Your task to perform on an android device: check battery use Image 0: 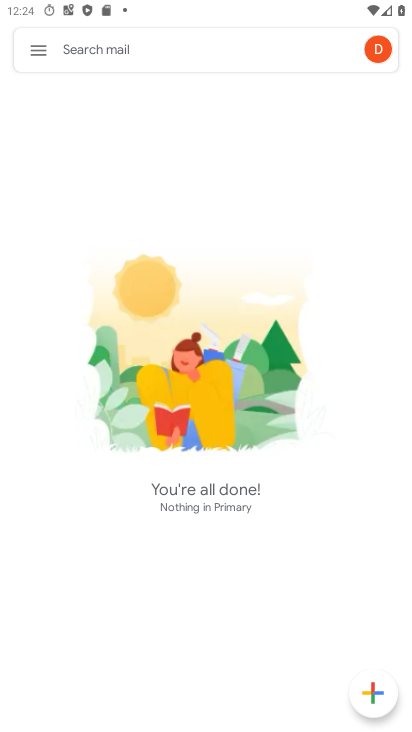
Step 0: press home button
Your task to perform on an android device: check battery use Image 1: 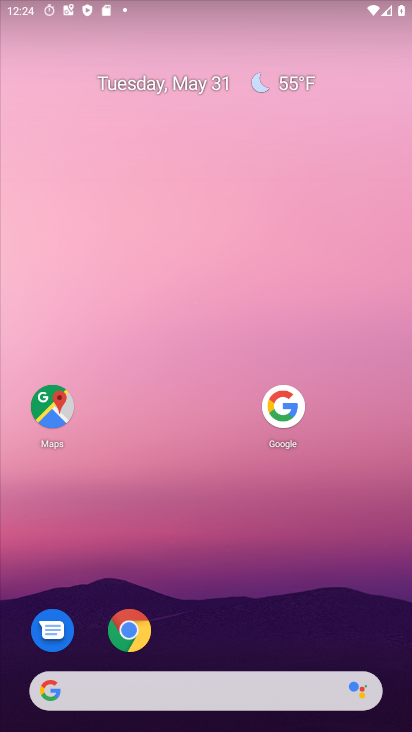
Step 1: drag from (261, 693) to (399, 169)
Your task to perform on an android device: check battery use Image 2: 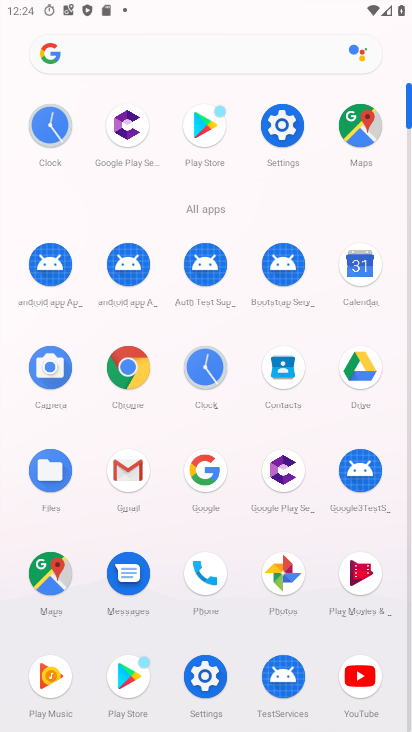
Step 2: click (272, 119)
Your task to perform on an android device: check battery use Image 3: 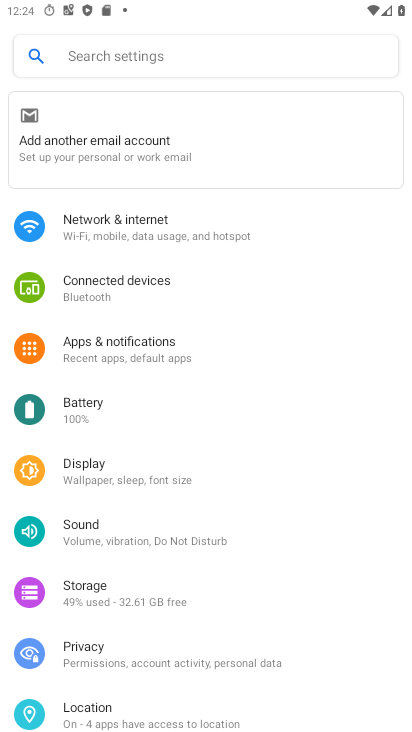
Step 3: click (88, 402)
Your task to perform on an android device: check battery use Image 4: 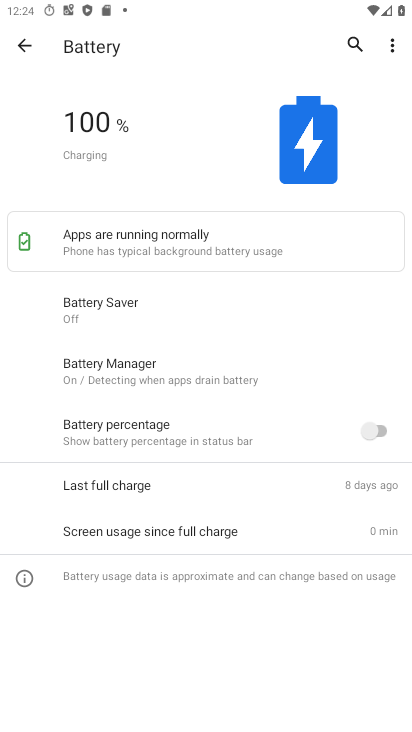
Step 4: click (388, 46)
Your task to perform on an android device: check battery use Image 5: 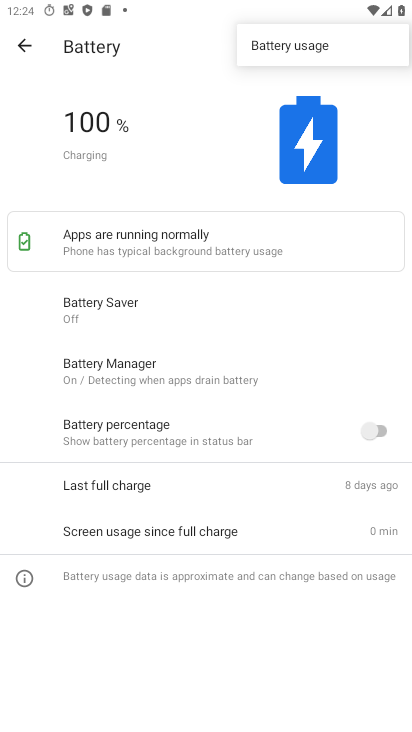
Step 5: click (291, 45)
Your task to perform on an android device: check battery use Image 6: 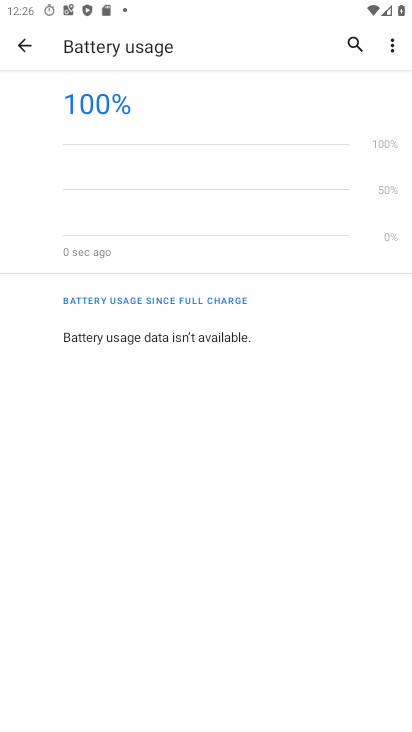
Step 6: task complete